Your task to perform on an android device: Play the last video I watched on Youtube Image 0: 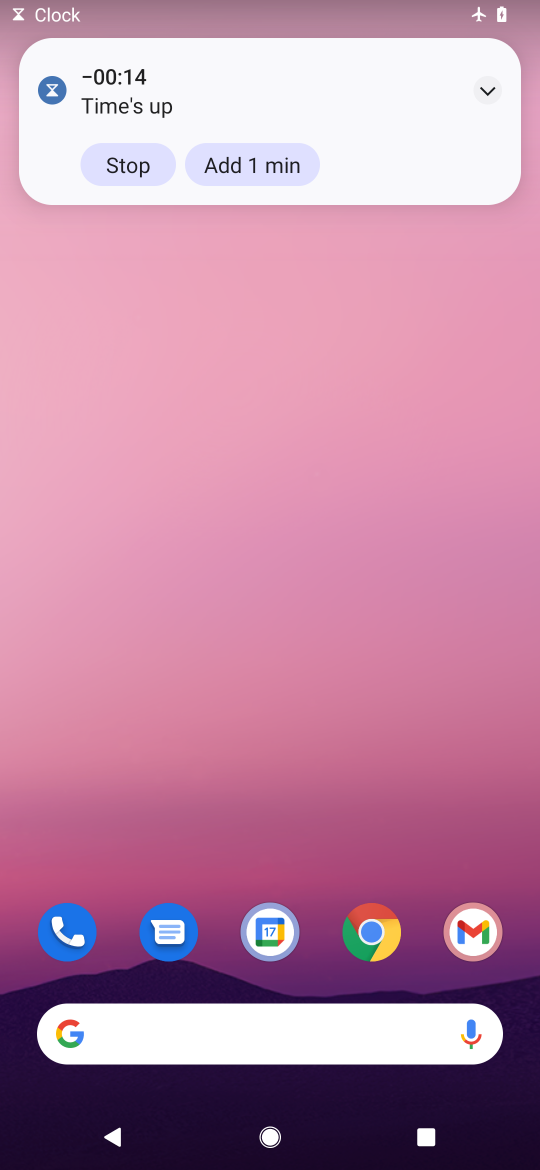
Step 0: click (126, 162)
Your task to perform on an android device: Play the last video I watched on Youtube Image 1: 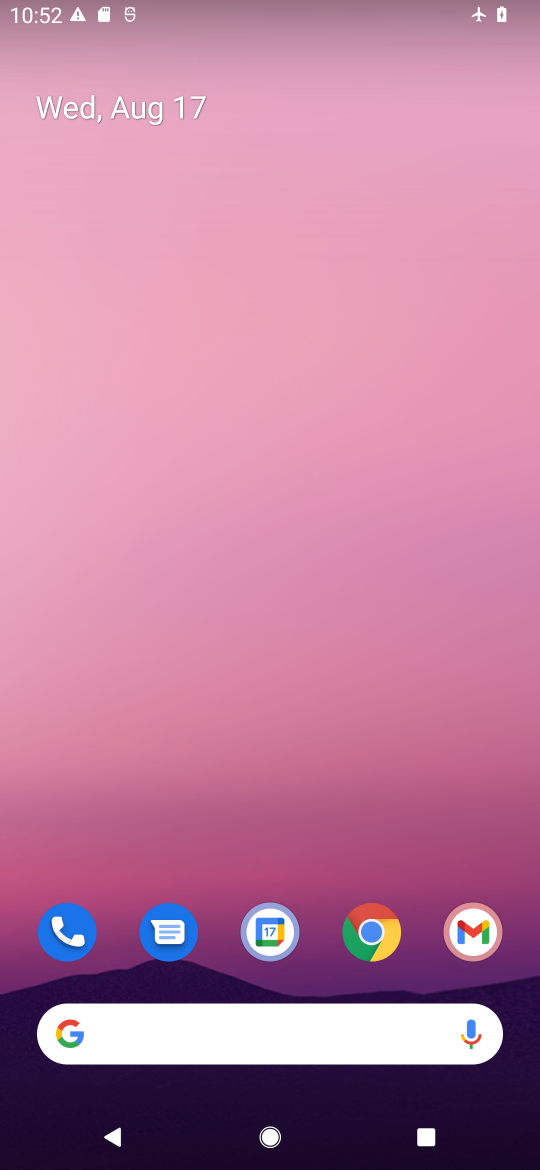
Step 1: drag from (300, 875) to (270, 191)
Your task to perform on an android device: Play the last video I watched on Youtube Image 2: 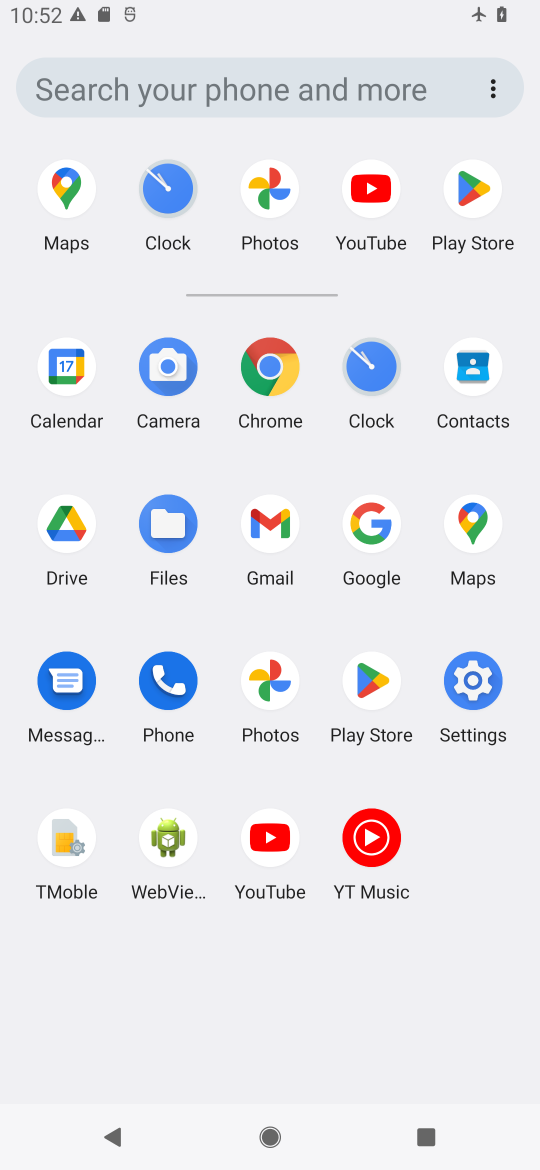
Step 2: click (363, 213)
Your task to perform on an android device: Play the last video I watched on Youtube Image 3: 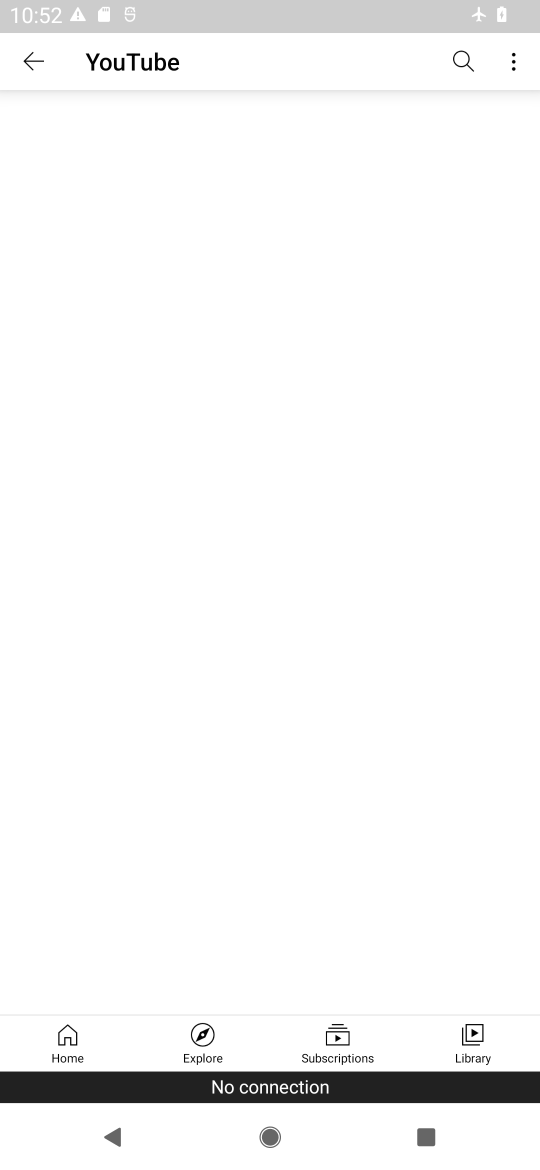
Step 3: click (468, 1014)
Your task to perform on an android device: Play the last video I watched on Youtube Image 4: 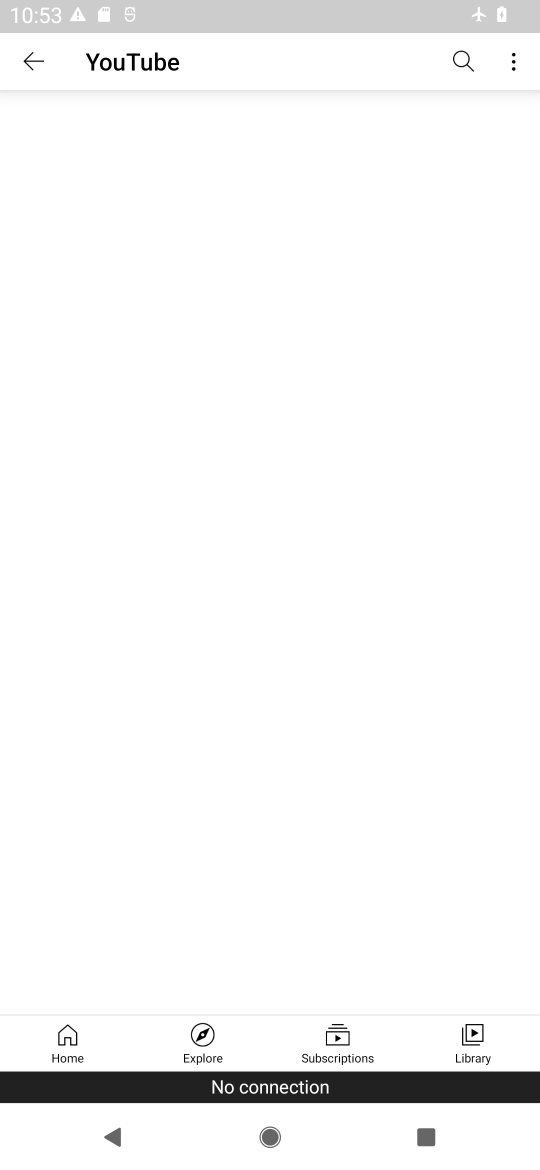
Step 4: click (474, 1029)
Your task to perform on an android device: Play the last video I watched on Youtube Image 5: 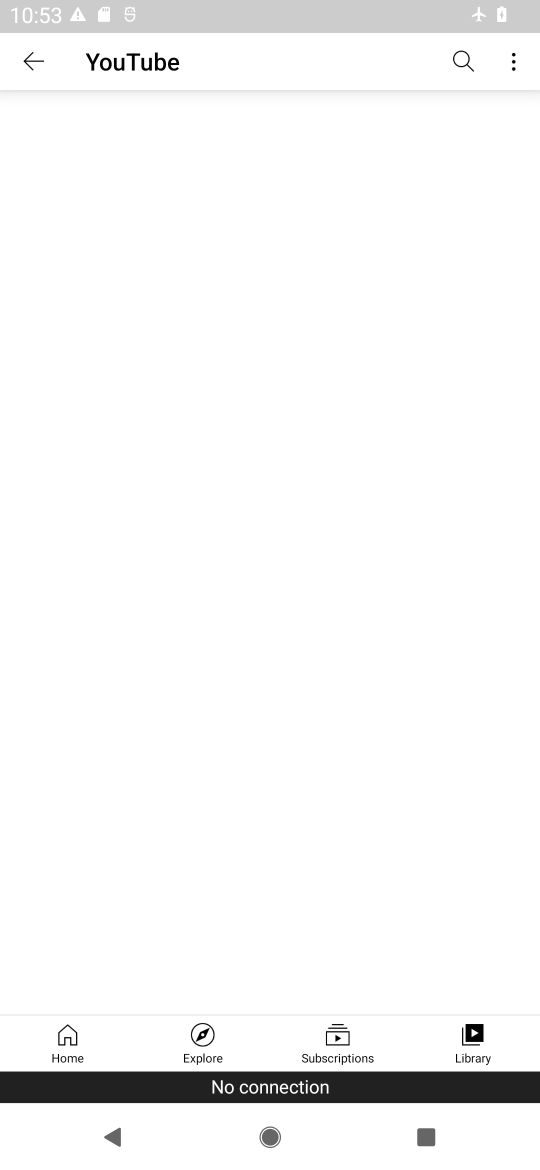
Step 5: task complete